Your task to perform on an android device: open wifi settings Image 0: 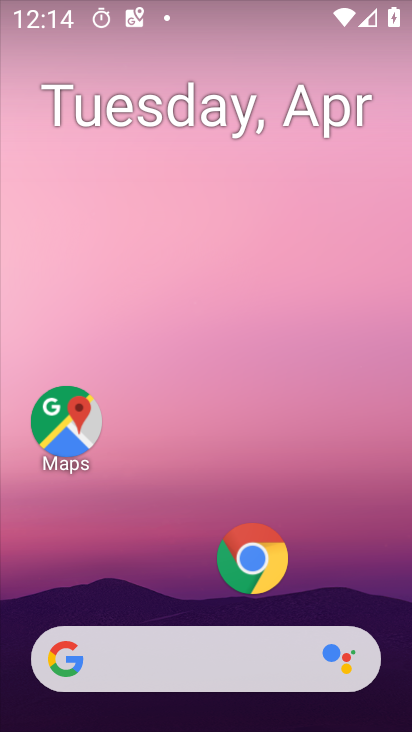
Step 0: drag from (193, 575) to (195, 217)
Your task to perform on an android device: open wifi settings Image 1: 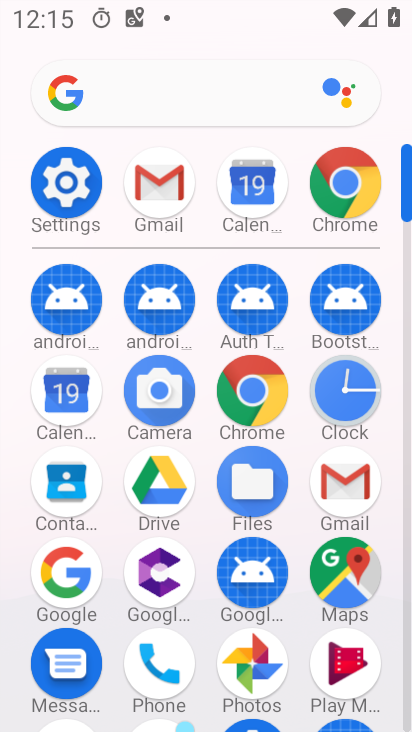
Step 1: drag from (219, 625) to (245, 297)
Your task to perform on an android device: open wifi settings Image 2: 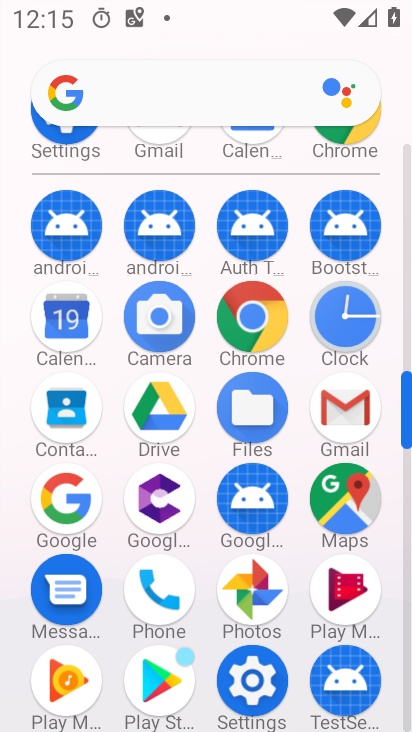
Step 2: click (246, 681)
Your task to perform on an android device: open wifi settings Image 3: 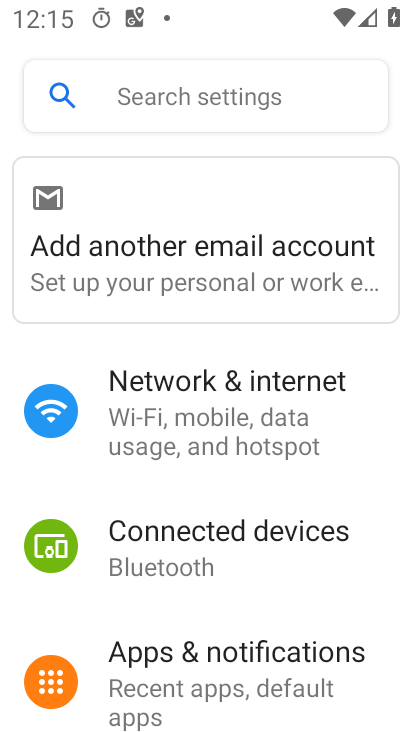
Step 3: click (205, 418)
Your task to perform on an android device: open wifi settings Image 4: 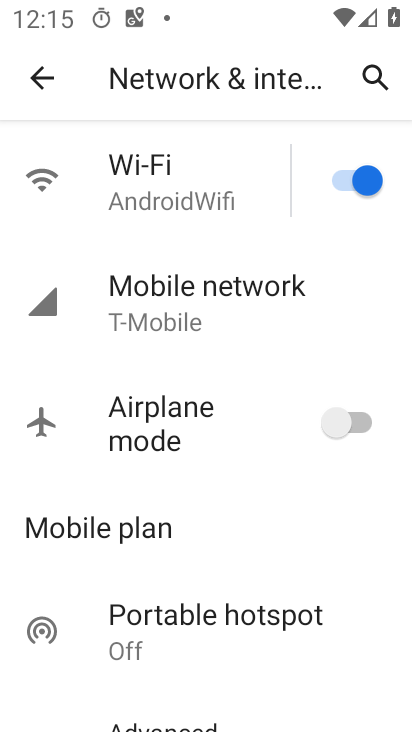
Step 4: drag from (226, 553) to (219, 466)
Your task to perform on an android device: open wifi settings Image 5: 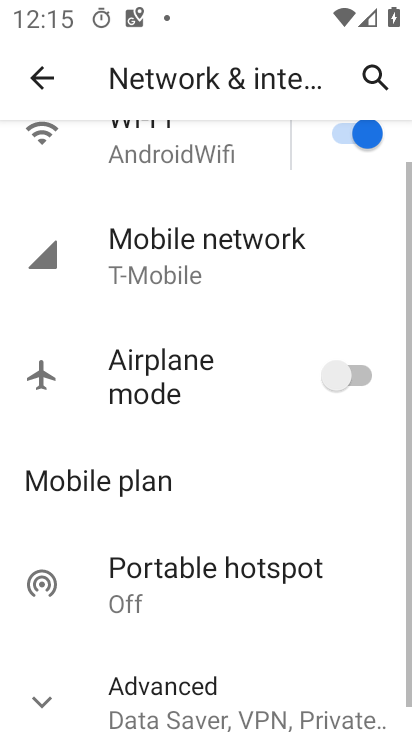
Step 5: click (148, 164)
Your task to perform on an android device: open wifi settings Image 6: 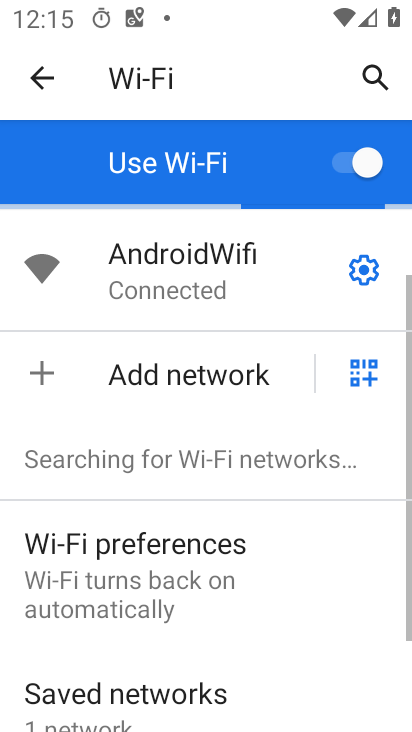
Step 6: task complete